Your task to perform on an android device: turn on the 24-hour format for clock Image 0: 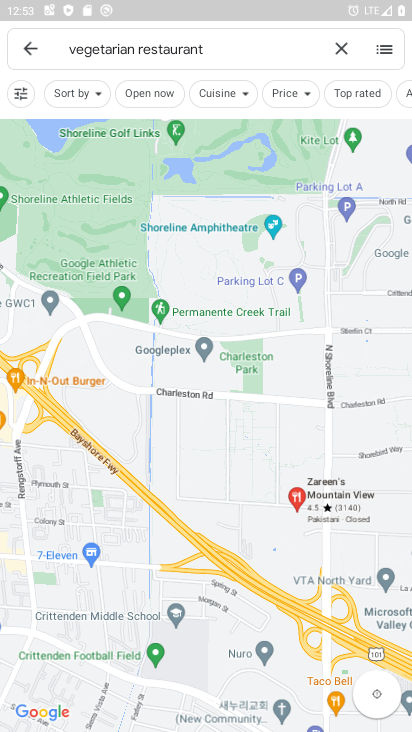
Step 0: click (181, 631)
Your task to perform on an android device: turn on the 24-hour format for clock Image 1: 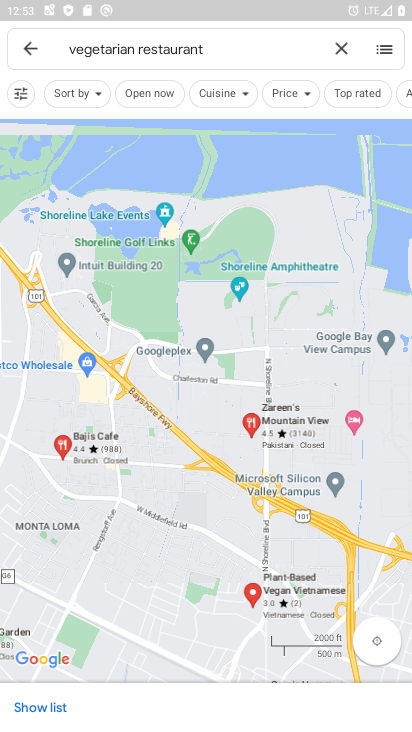
Step 1: press home button
Your task to perform on an android device: turn on the 24-hour format for clock Image 2: 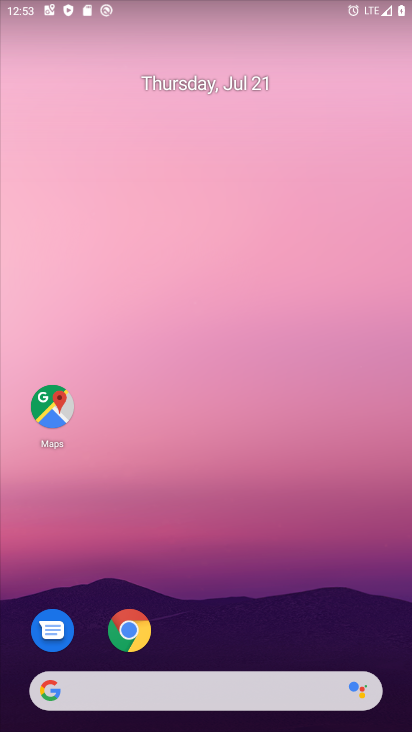
Step 2: drag from (182, 624) to (224, 15)
Your task to perform on an android device: turn on the 24-hour format for clock Image 3: 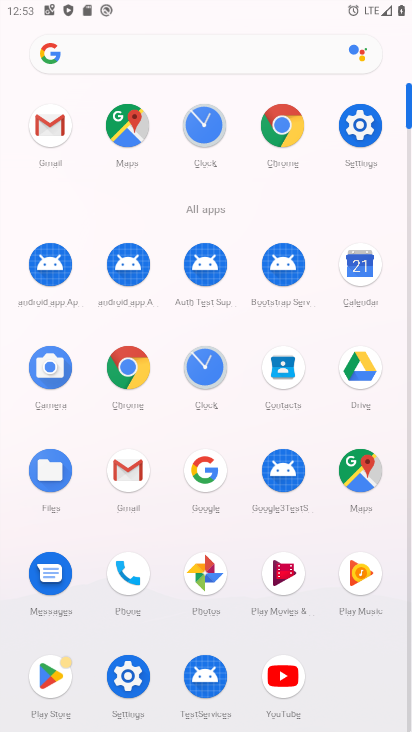
Step 3: click (200, 141)
Your task to perform on an android device: turn on the 24-hour format for clock Image 4: 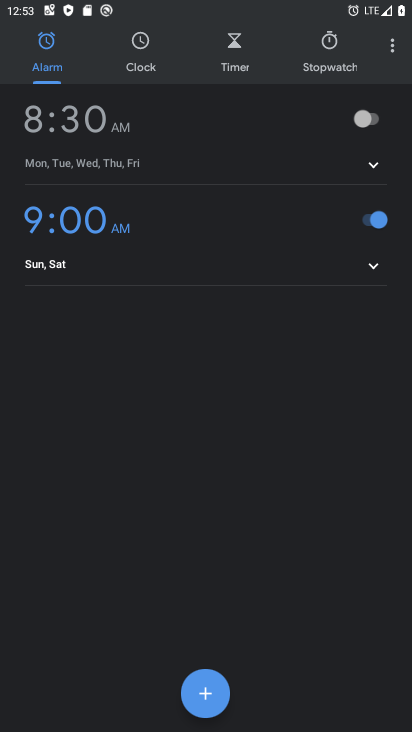
Step 4: click (391, 54)
Your task to perform on an android device: turn on the 24-hour format for clock Image 5: 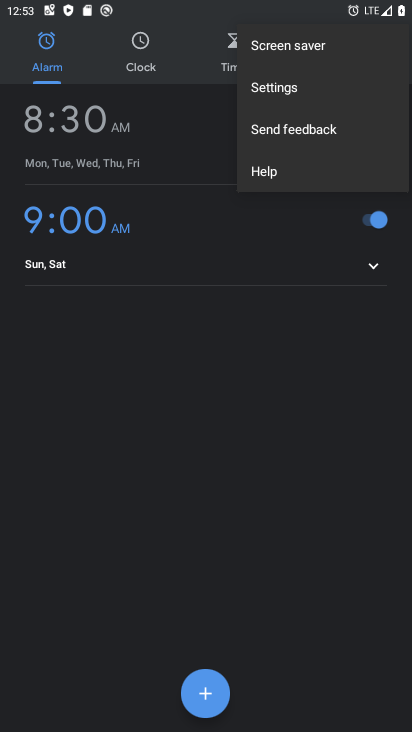
Step 5: click (333, 99)
Your task to perform on an android device: turn on the 24-hour format for clock Image 6: 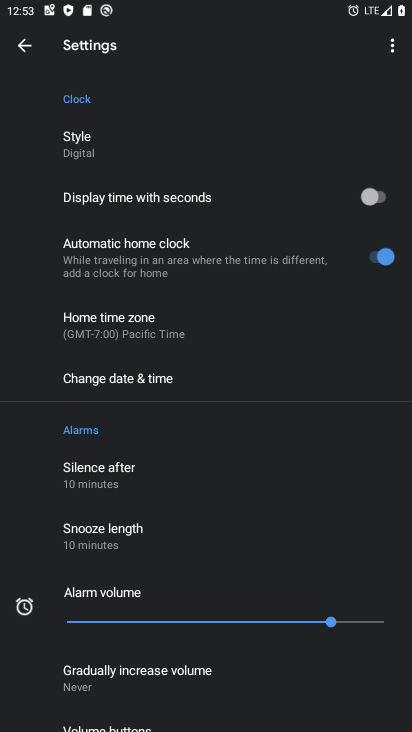
Step 6: click (177, 372)
Your task to perform on an android device: turn on the 24-hour format for clock Image 7: 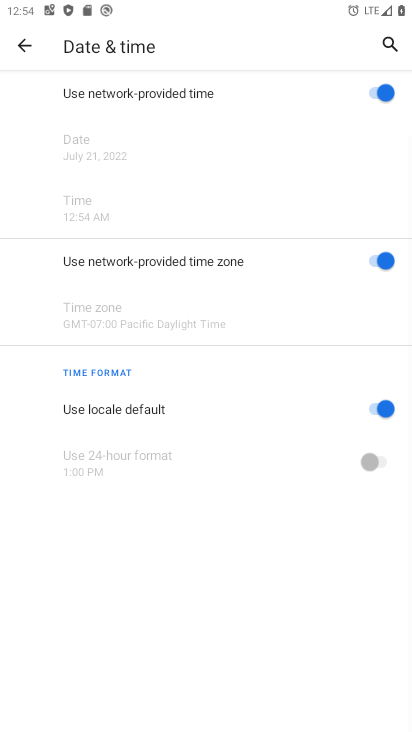
Step 7: click (385, 417)
Your task to perform on an android device: turn on the 24-hour format for clock Image 8: 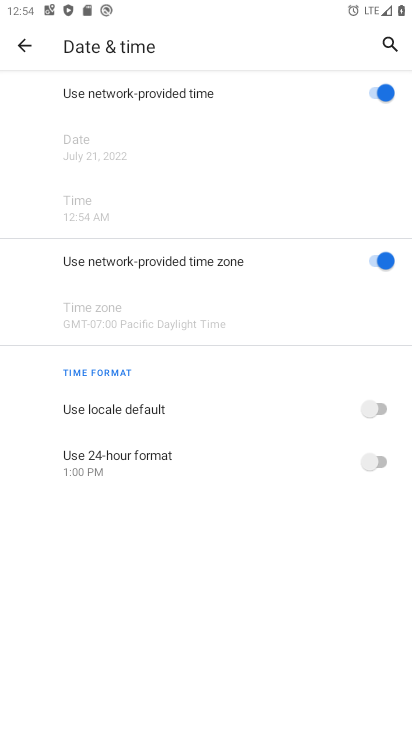
Step 8: click (375, 462)
Your task to perform on an android device: turn on the 24-hour format for clock Image 9: 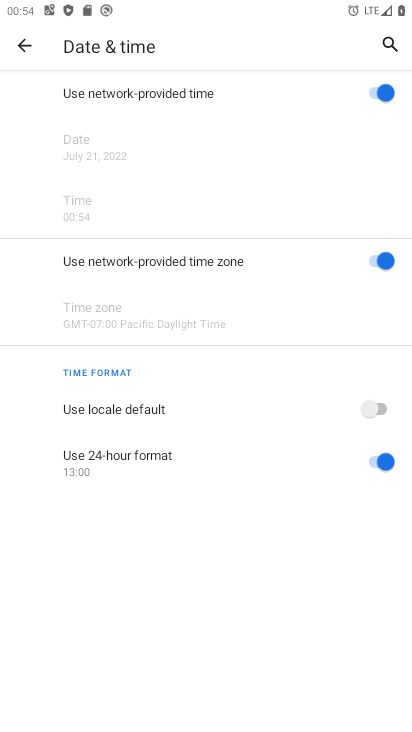
Step 9: task complete